Your task to perform on an android device: Open Wikipedia Image 0: 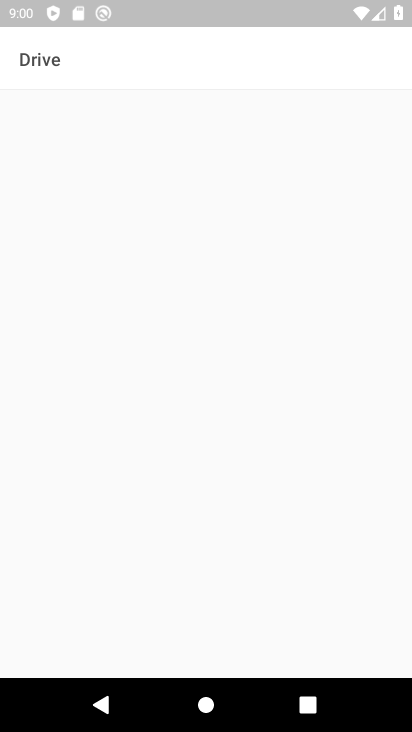
Step 0: press home button
Your task to perform on an android device: Open Wikipedia Image 1: 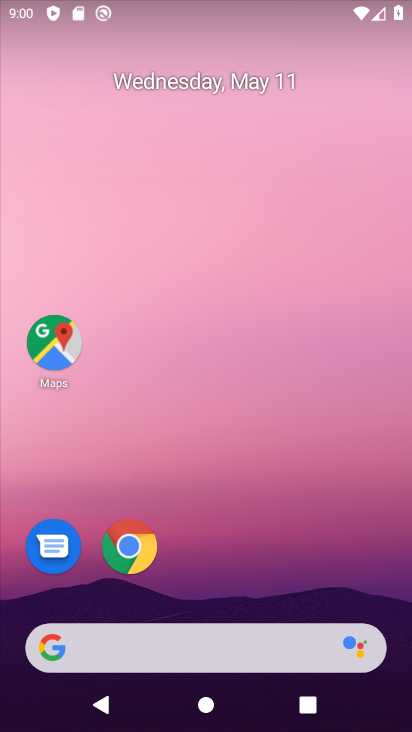
Step 1: click (145, 549)
Your task to perform on an android device: Open Wikipedia Image 2: 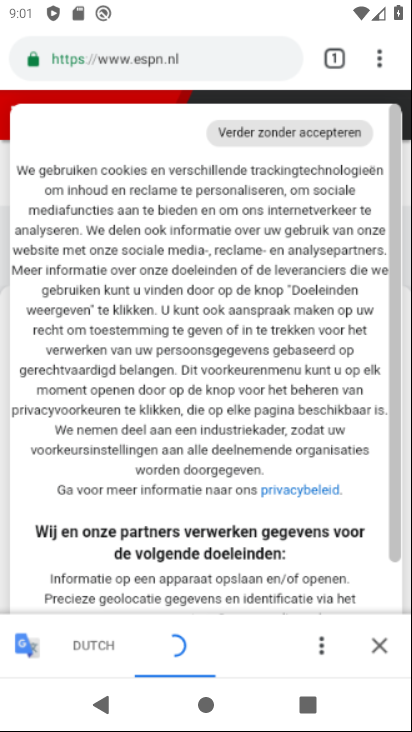
Step 2: click (195, 46)
Your task to perform on an android device: Open Wikipedia Image 3: 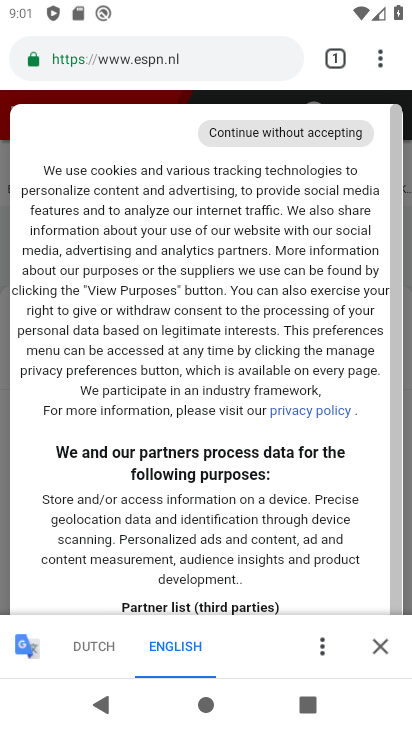
Step 3: click (249, 59)
Your task to perform on an android device: Open Wikipedia Image 4: 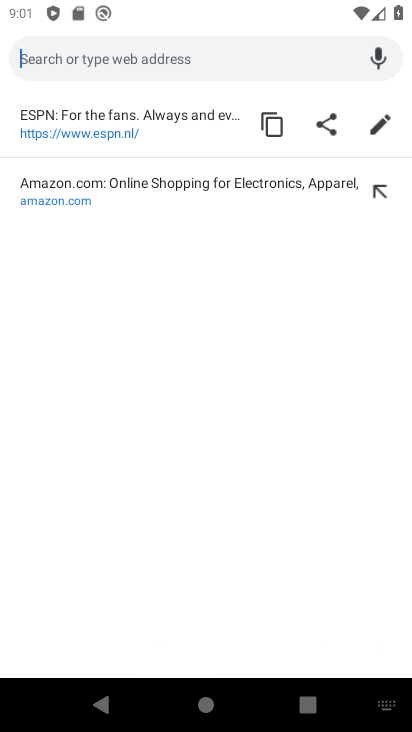
Step 4: type "wikipedia"
Your task to perform on an android device: Open Wikipedia Image 5: 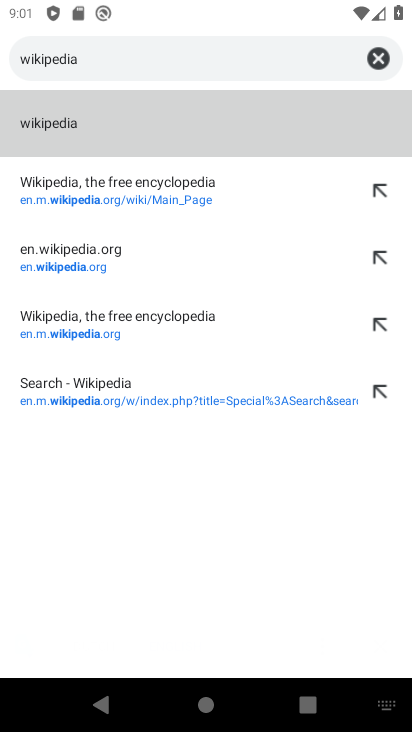
Step 5: click (206, 183)
Your task to perform on an android device: Open Wikipedia Image 6: 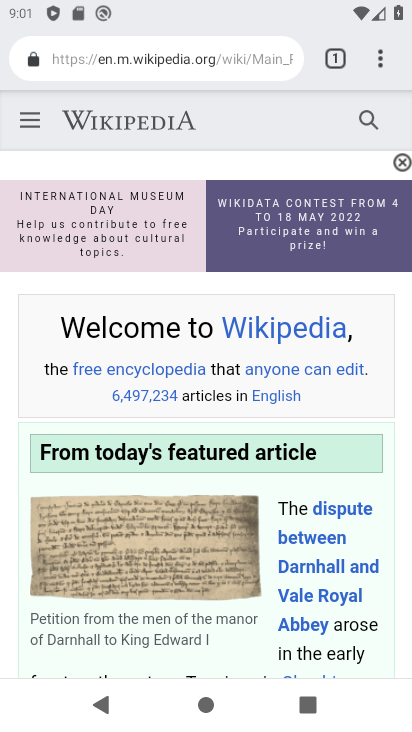
Step 6: task complete